Your task to perform on an android device: Open network settings Image 0: 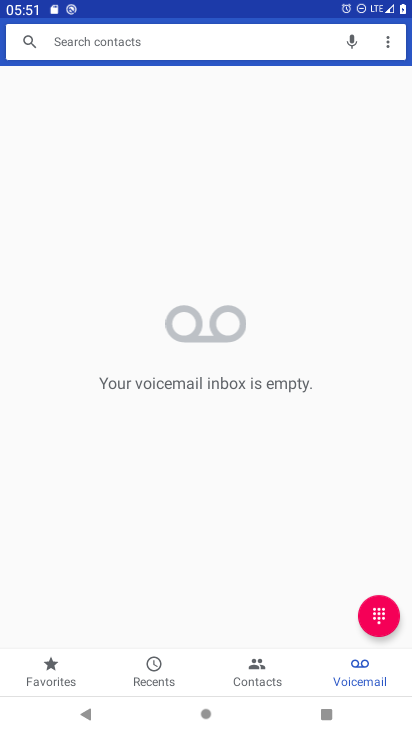
Step 0: press home button
Your task to perform on an android device: Open network settings Image 1: 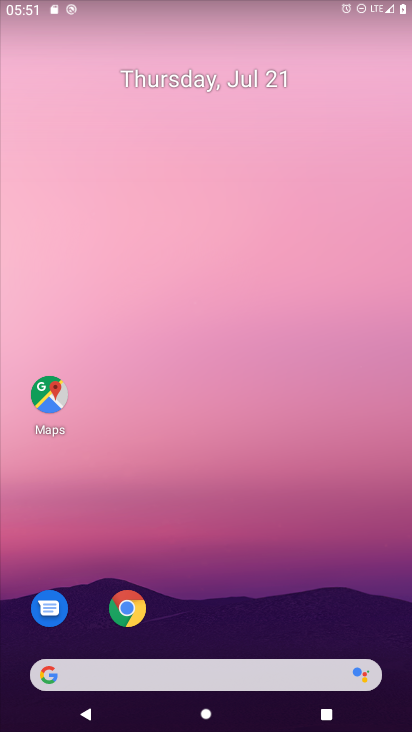
Step 1: drag from (301, 586) to (335, 36)
Your task to perform on an android device: Open network settings Image 2: 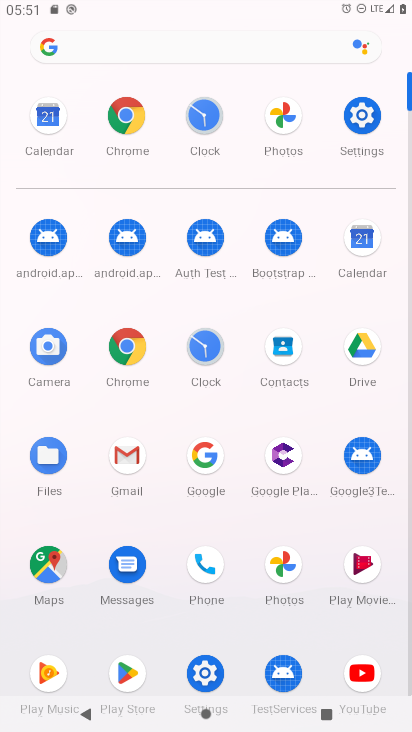
Step 2: click (369, 109)
Your task to perform on an android device: Open network settings Image 3: 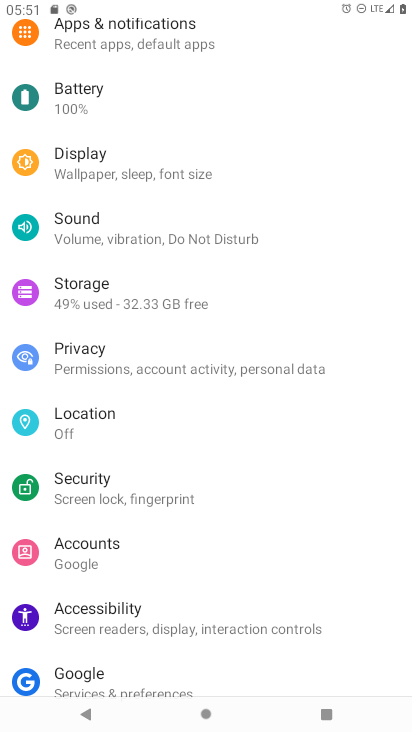
Step 3: drag from (139, 64) to (226, 655)
Your task to perform on an android device: Open network settings Image 4: 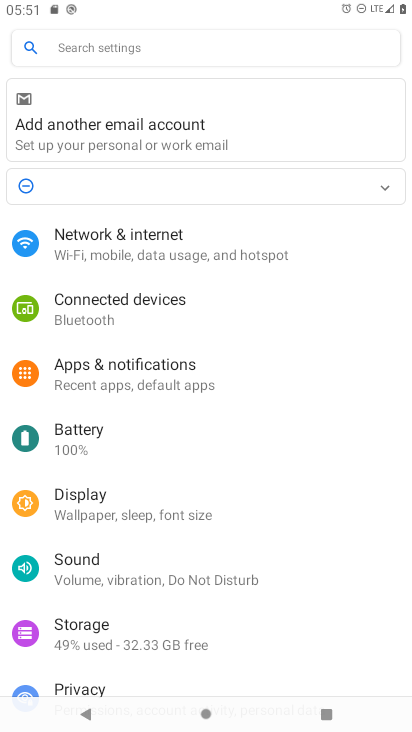
Step 4: click (196, 254)
Your task to perform on an android device: Open network settings Image 5: 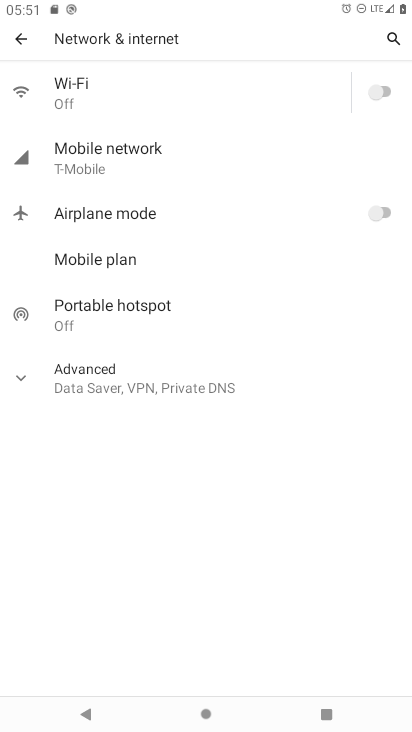
Step 5: task complete